Your task to perform on an android device: clear all cookies in the chrome app Image 0: 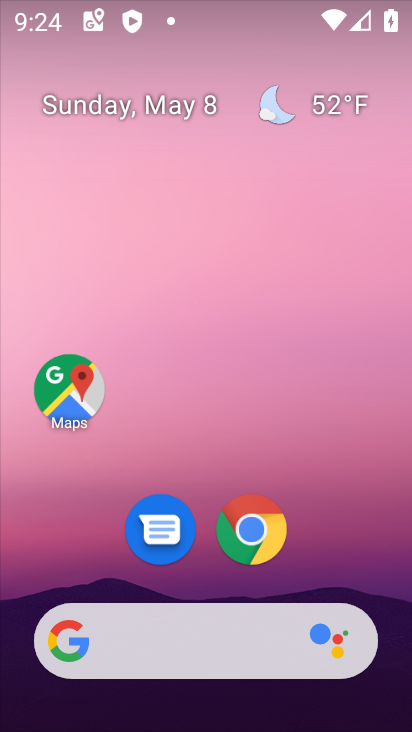
Step 0: drag from (382, 568) to (391, 113)
Your task to perform on an android device: clear all cookies in the chrome app Image 1: 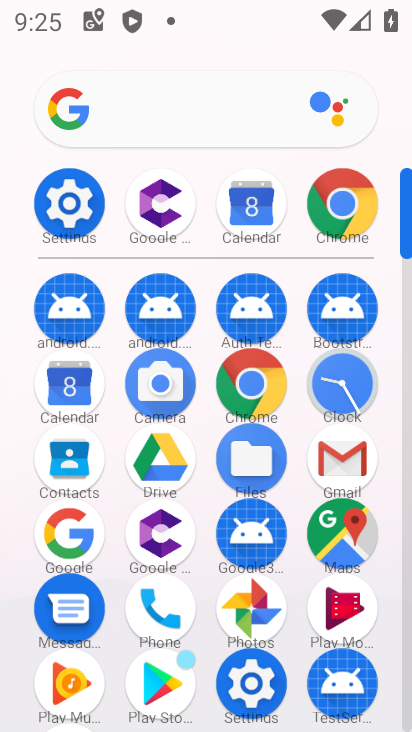
Step 1: click (249, 379)
Your task to perform on an android device: clear all cookies in the chrome app Image 2: 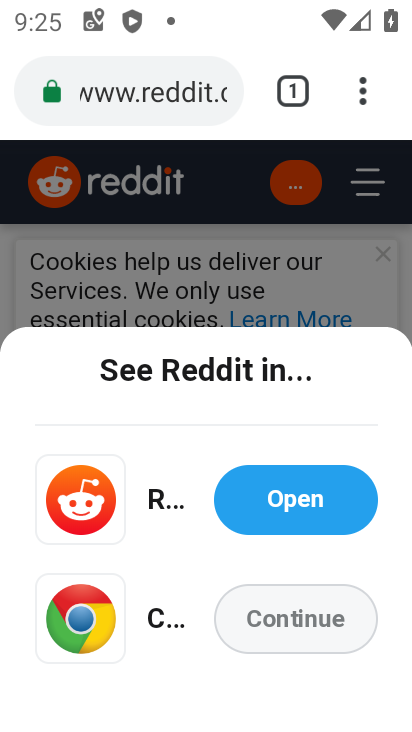
Step 2: drag from (362, 98) to (172, 511)
Your task to perform on an android device: clear all cookies in the chrome app Image 3: 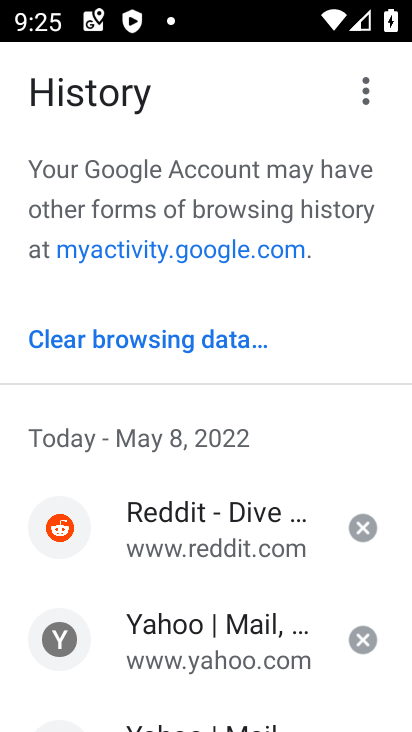
Step 3: click (142, 340)
Your task to perform on an android device: clear all cookies in the chrome app Image 4: 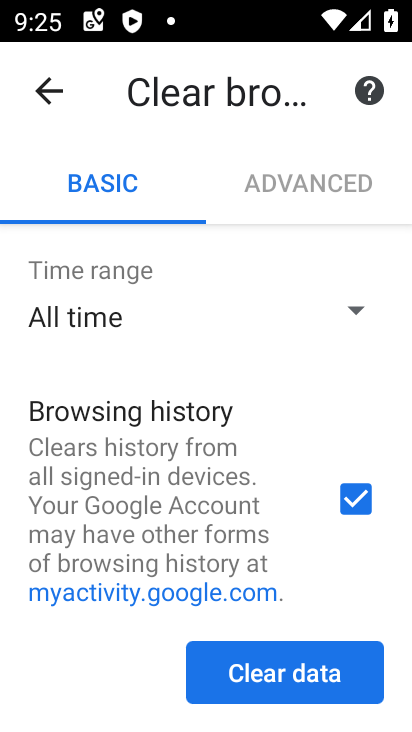
Step 4: drag from (227, 566) to (214, 339)
Your task to perform on an android device: clear all cookies in the chrome app Image 5: 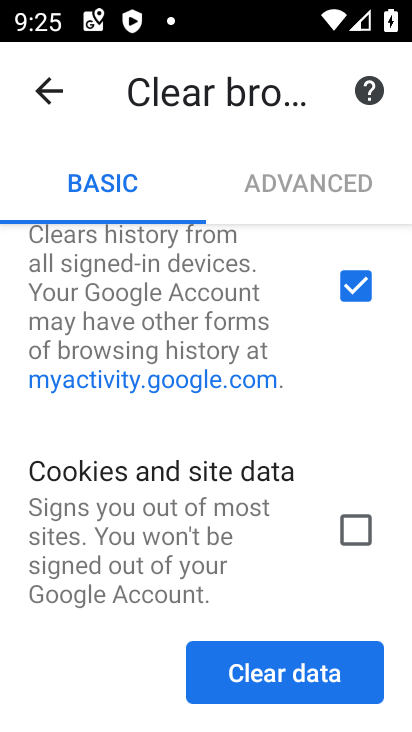
Step 5: click (349, 534)
Your task to perform on an android device: clear all cookies in the chrome app Image 6: 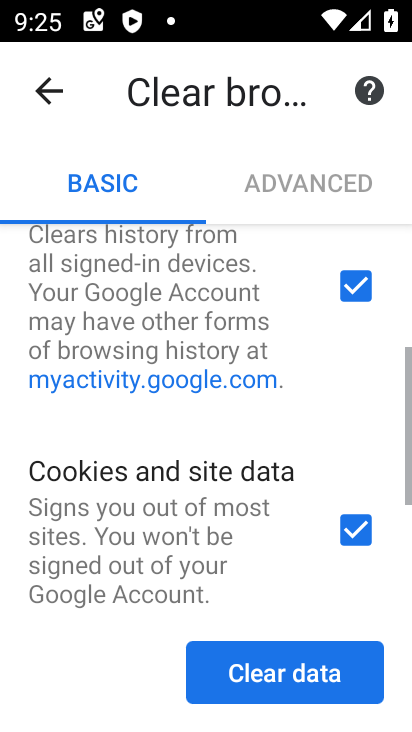
Step 6: click (357, 279)
Your task to perform on an android device: clear all cookies in the chrome app Image 7: 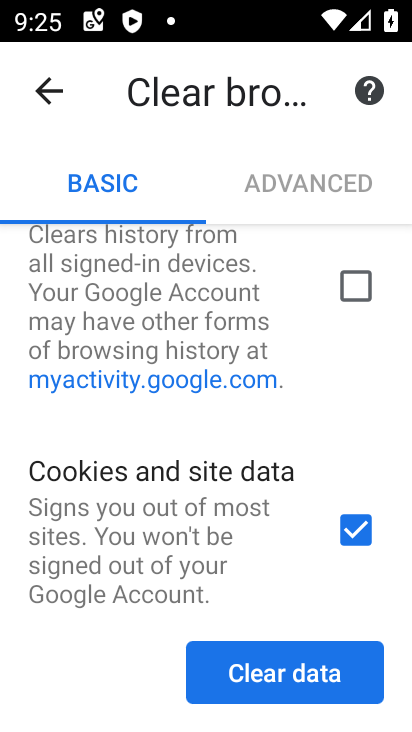
Step 7: click (262, 670)
Your task to perform on an android device: clear all cookies in the chrome app Image 8: 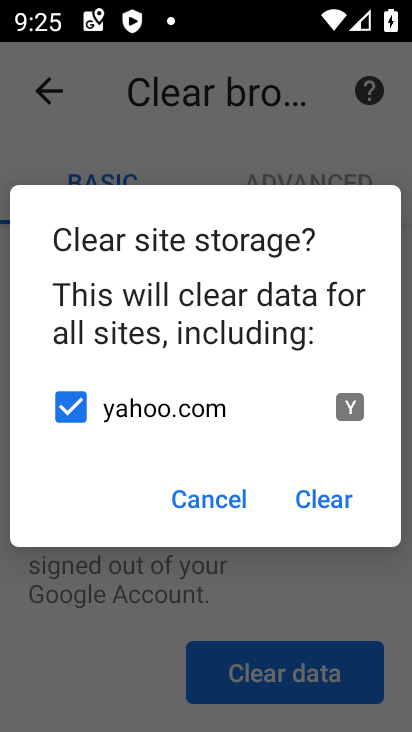
Step 8: click (331, 482)
Your task to perform on an android device: clear all cookies in the chrome app Image 9: 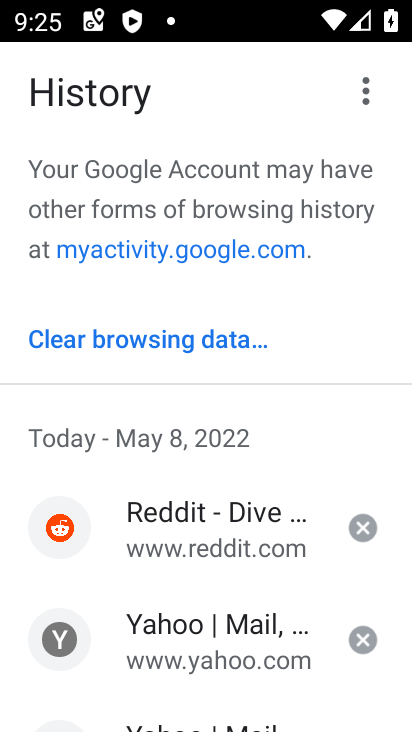
Step 9: task complete